Your task to perform on an android device: What's on my calendar tomorrow? Image 0: 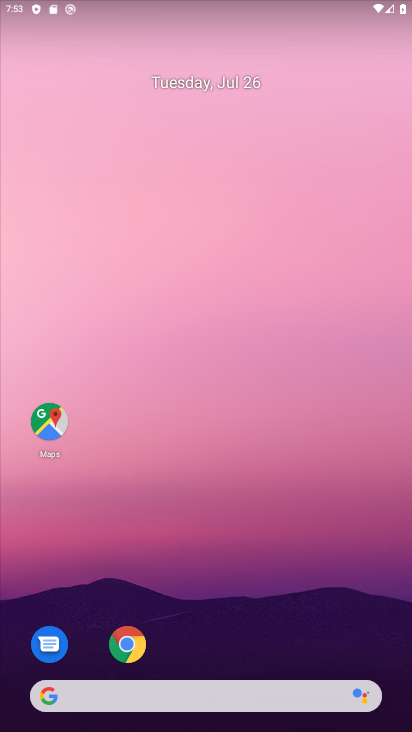
Step 0: drag from (198, 569) to (204, 272)
Your task to perform on an android device: What's on my calendar tomorrow? Image 1: 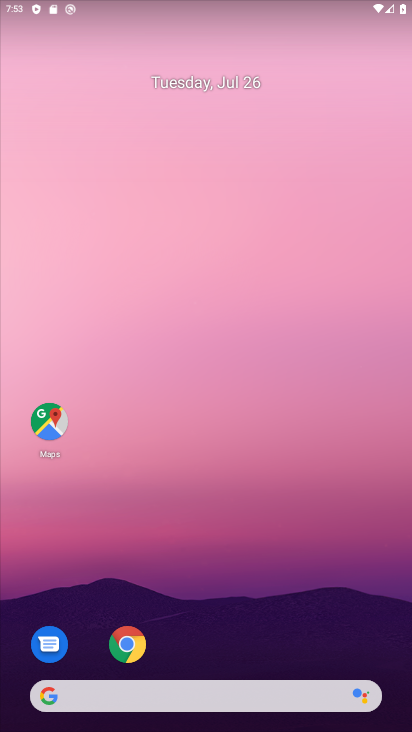
Step 1: drag from (216, 702) to (217, 255)
Your task to perform on an android device: What's on my calendar tomorrow? Image 2: 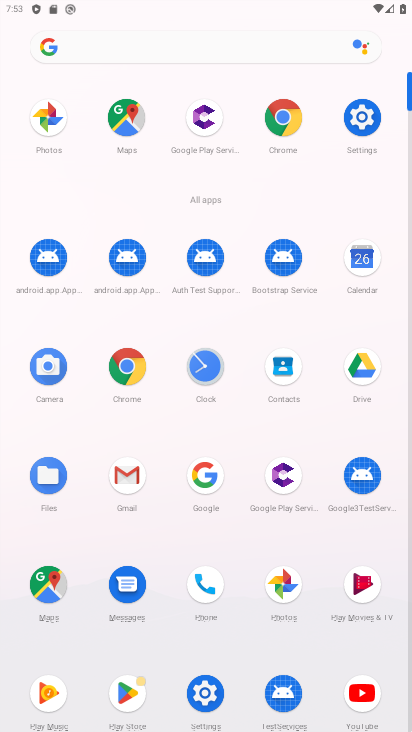
Step 2: click (356, 250)
Your task to perform on an android device: What's on my calendar tomorrow? Image 3: 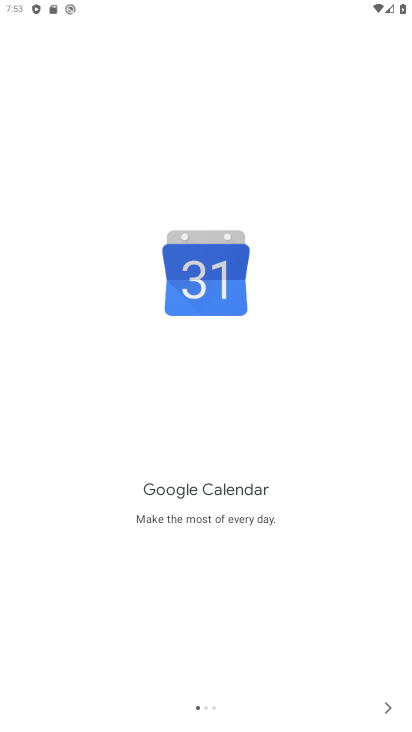
Step 3: click (380, 704)
Your task to perform on an android device: What's on my calendar tomorrow? Image 4: 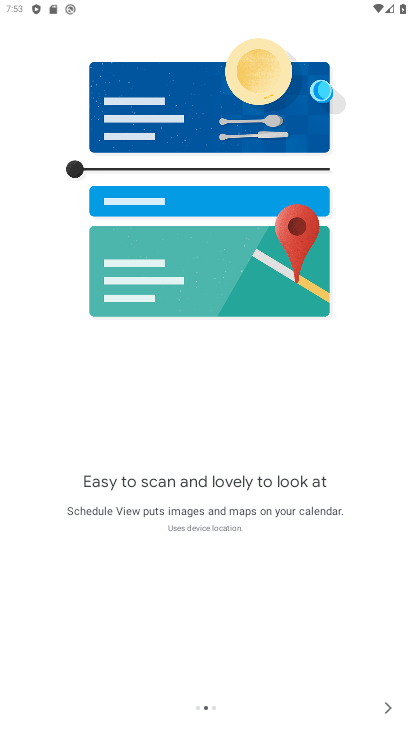
Step 4: click (380, 704)
Your task to perform on an android device: What's on my calendar tomorrow? Image 5: 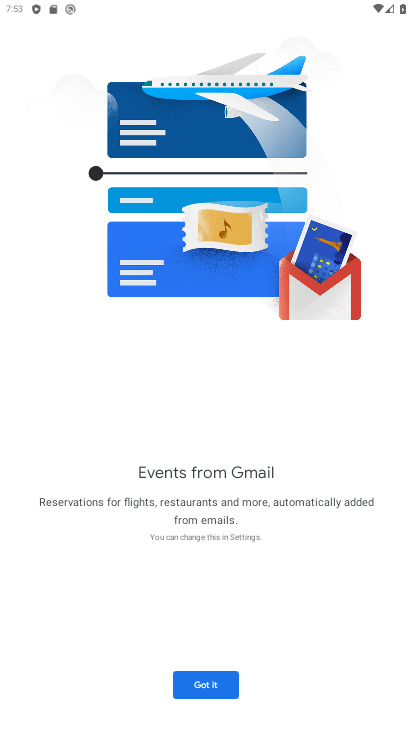
Step 5: click (209, 679)
Your task to perform on an android device: What's on my calendar tomorrow? Image 6: 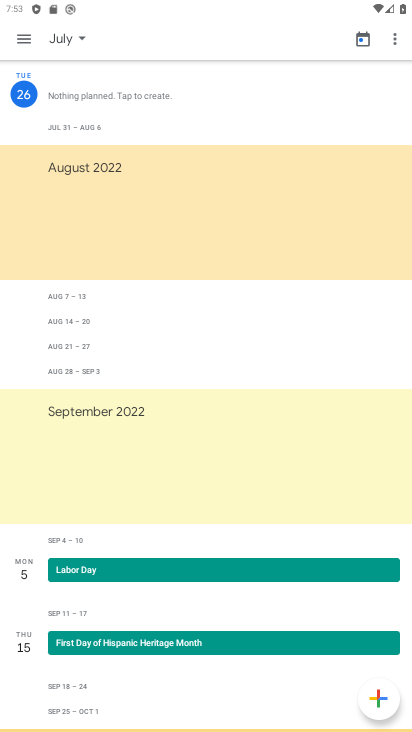
Step 6: click (21, 41)
Your task to perform on an android device: What's on my calendar tomorrow? Image 7: 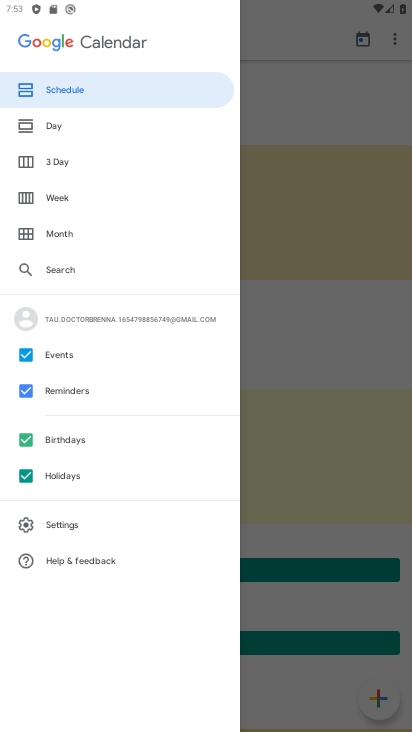
Step 7: click (54, 125)
Your task to perform on an android device: What's on my calendar tomorrow? Image 8: 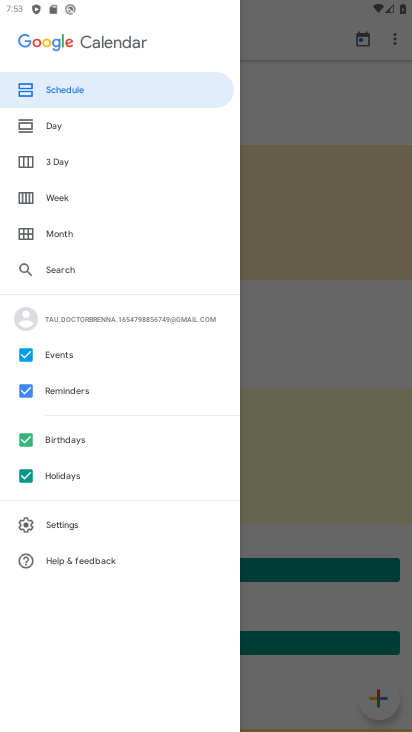
Step 8: click (40, 129)
Your task to perform on an android device: What's on my calendar tomorrow? Image 9: 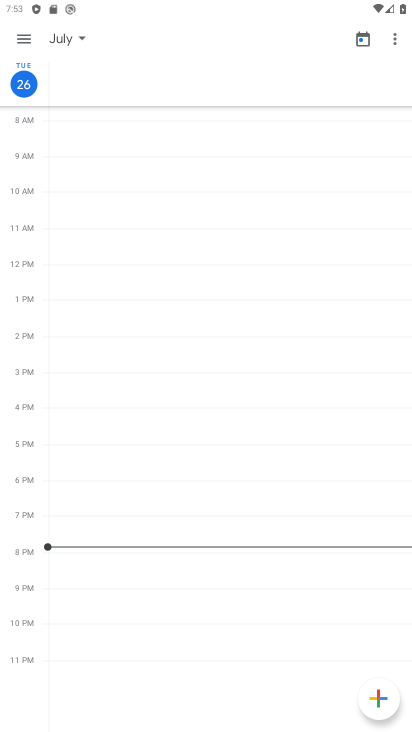
Step 9: drag from (79, 646) to (92, 159)
Your task to perform on an android device: What's on my calendar tomorrow? Image 10: 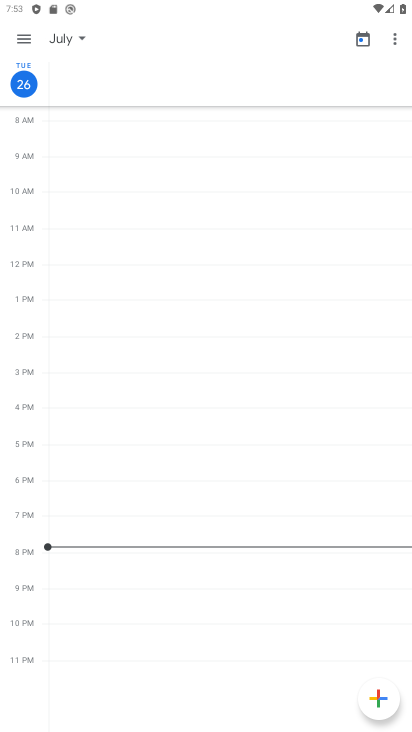
Step 10: click (24, 40)
Your task to perform on an android device: What's on my calendar tomorrow? Image 11: 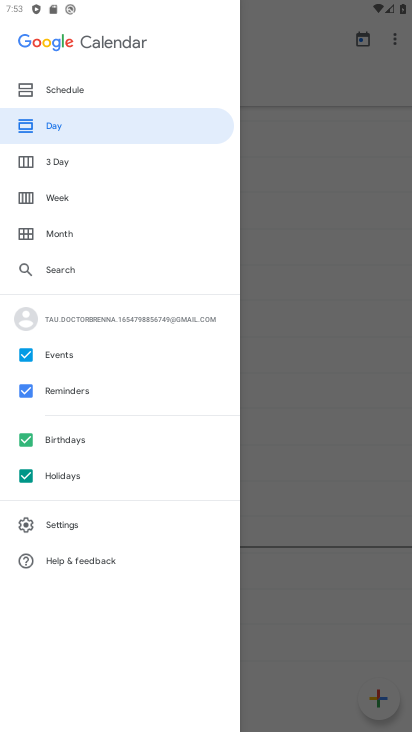
Step 11: click (52, 238)
Your task to perform on an android device: What's on my calendar tomorrow? Image 12: 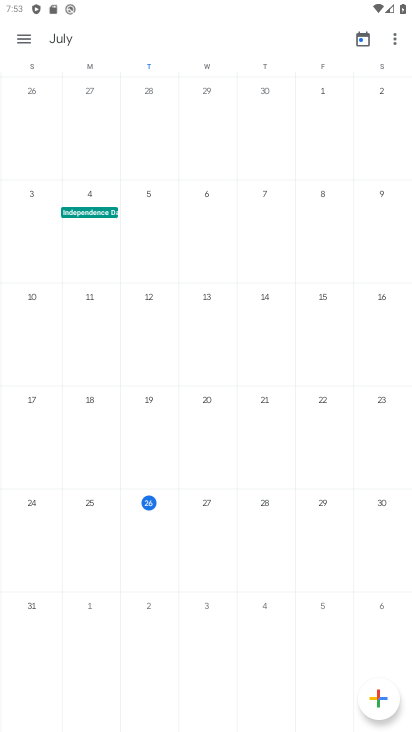
Step 12: click (209, 509)
Your task to perform on an android device: What's on my calendar tomorrow? Image 13: 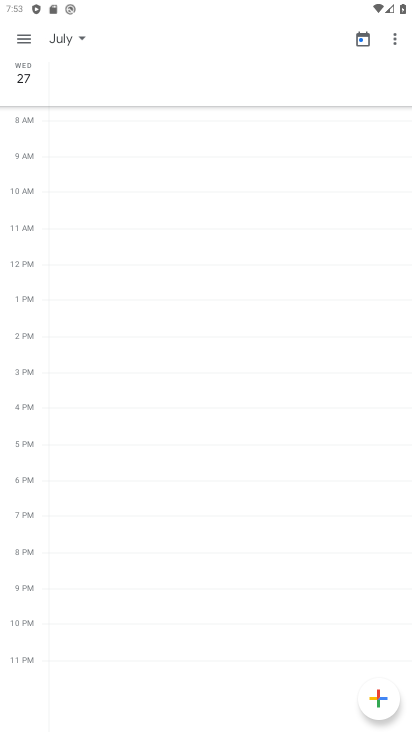
Step 13: click (16, 39)
Your task to perform on an android device: What's on my calendar tomorrow? Image 14: 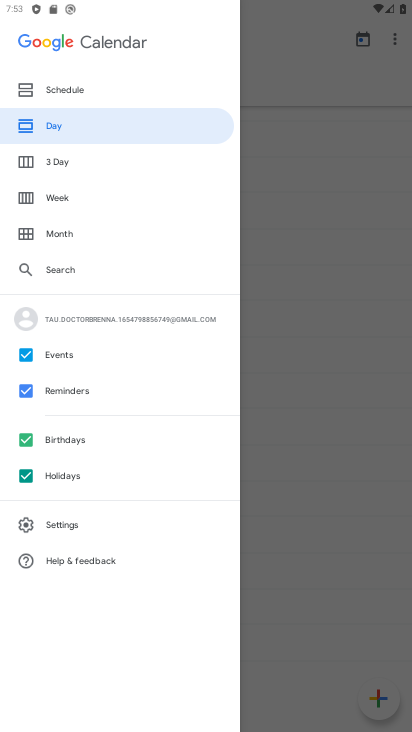
Step 14: click (325, 292)
Your task to perform on an android device: What's on my calendar tomorrow? Image 15: 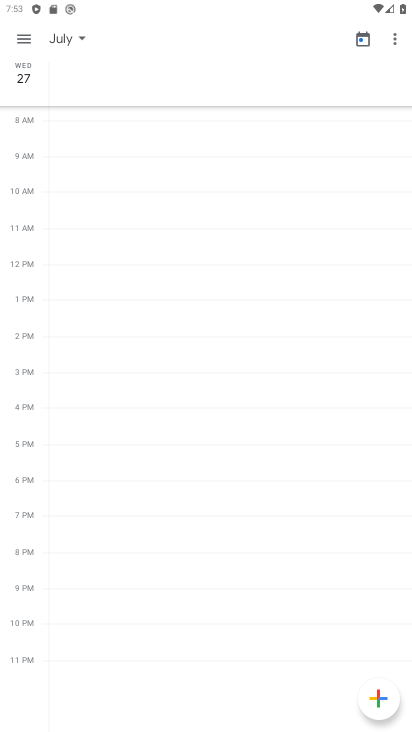
Step 15: click (20, 33)
Your task to perform on an android device: What's on my calendar tomorrow? Image 16: 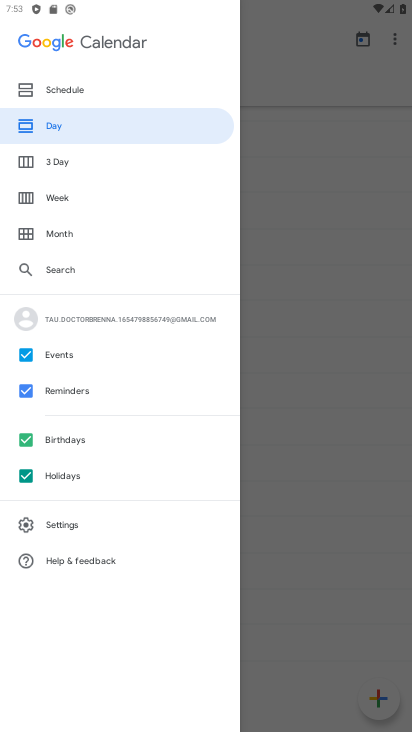
Step 16: click (31, 235)
Your task to perform on an android device: What's on my calendar tomorrow? Image 17: 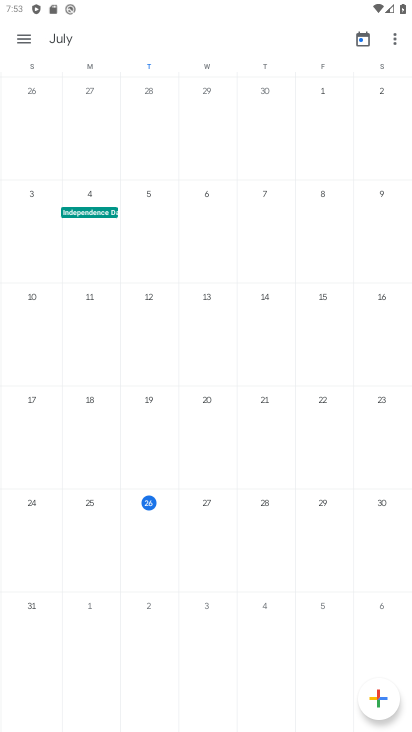
Step 17: click (271, 518)
Your task to perform on an android device: What's on my calendar tomorrow? Image 18: 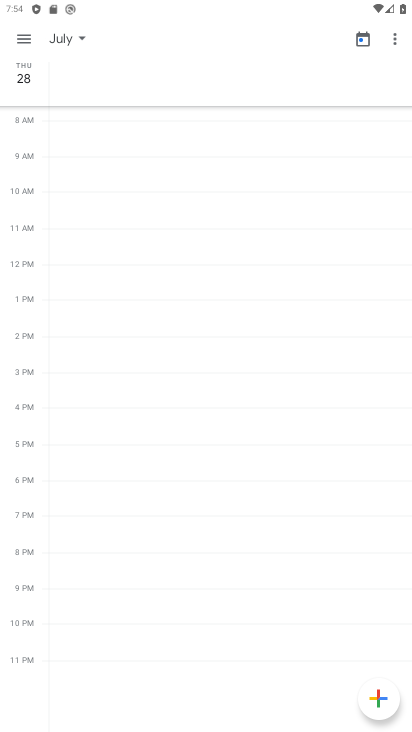
Step 18: task complete